Your task to perform on an android device: Open settings Image 0: 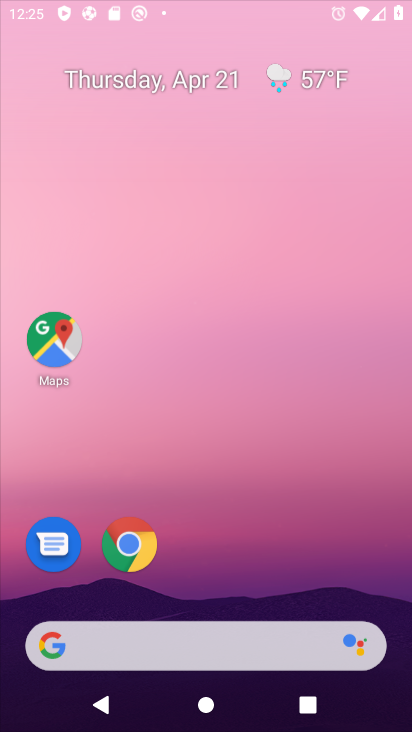
Step 0: drag from (244, 225) to (216, 1)
Your task to perform on an android device: Open settings Image 1: 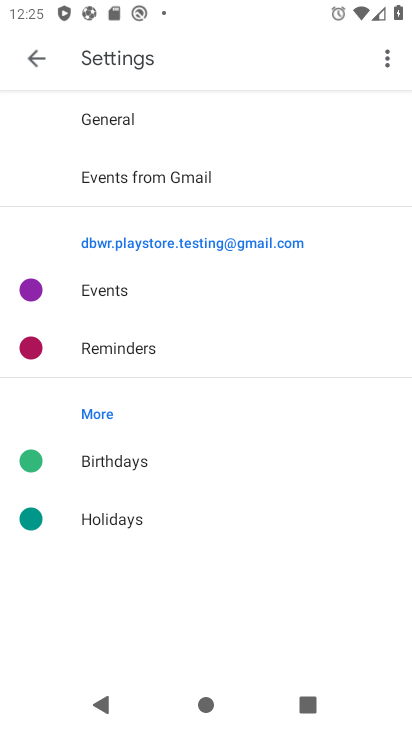
Step 1: press home button
Your task to perform on an android device: Open settings Image 2: 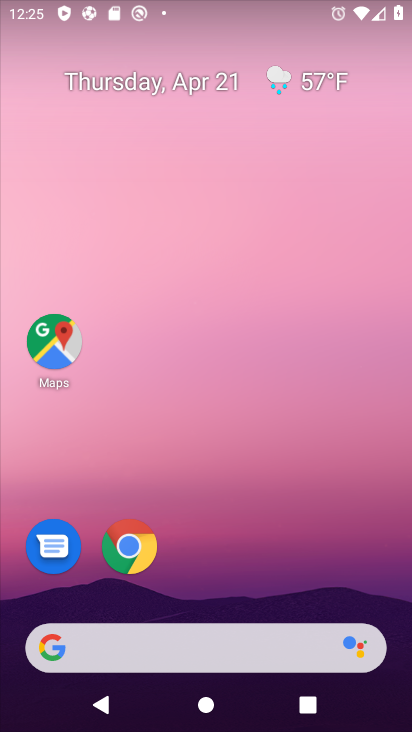
Step 2: drag from (320, 556) to (269, 58)
Your task to perform on an android device: Open settings Image 3: 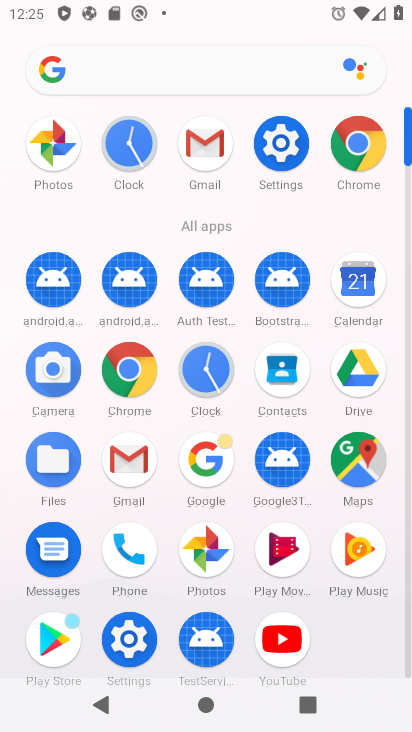
Step 3: click (285, 149)
Your task to perform on an android device: Open settings Image 4: 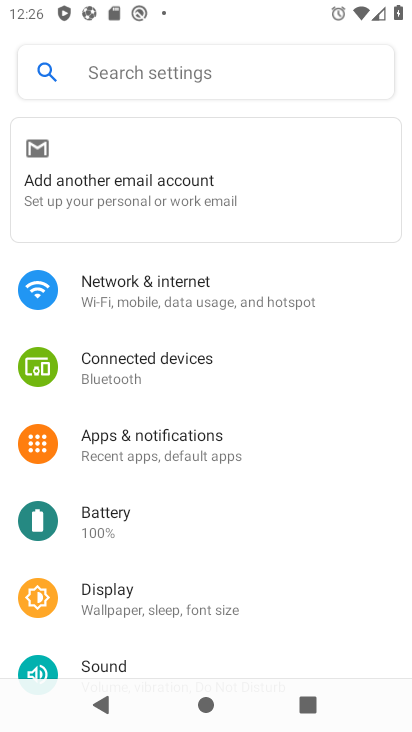
Step 4: task complete